Your task to perform on an android device: change the clock display to show seconds Image 0: 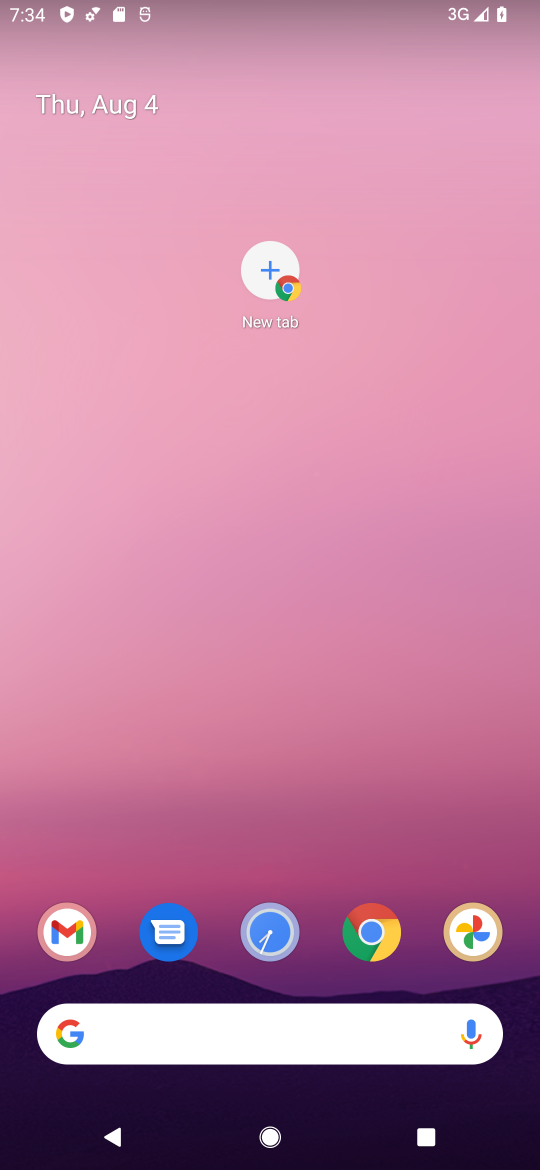
Step 0: drag from (348, 1023) to (239, 445)
Your task to perform on an android device: change the clock display to show seconds Image 1: 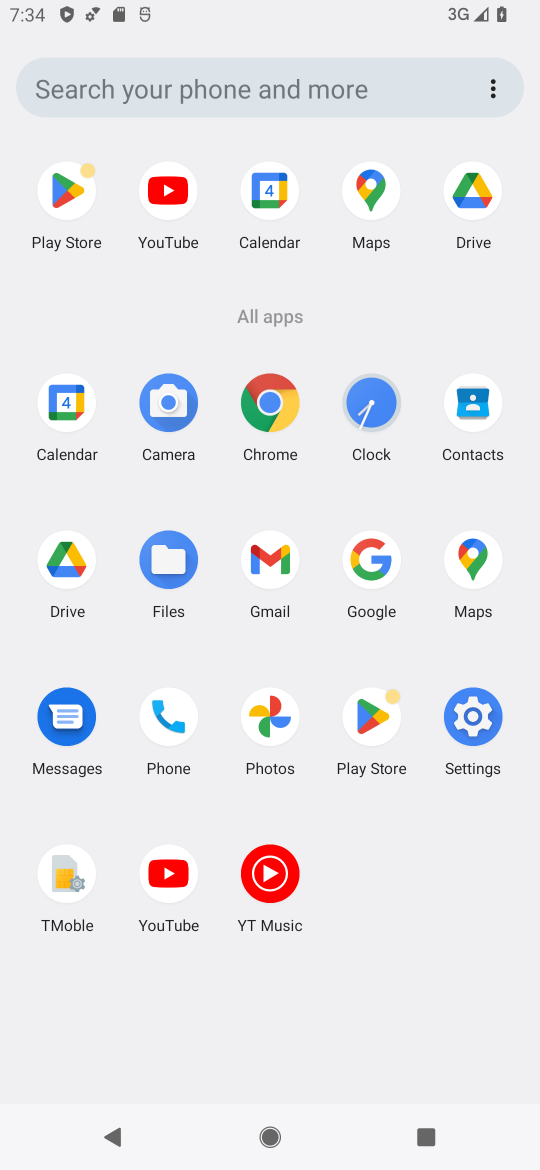
Step 1: click (367, 423)
Your task to perform on an android device: change the clock display to show seconds Image 2: 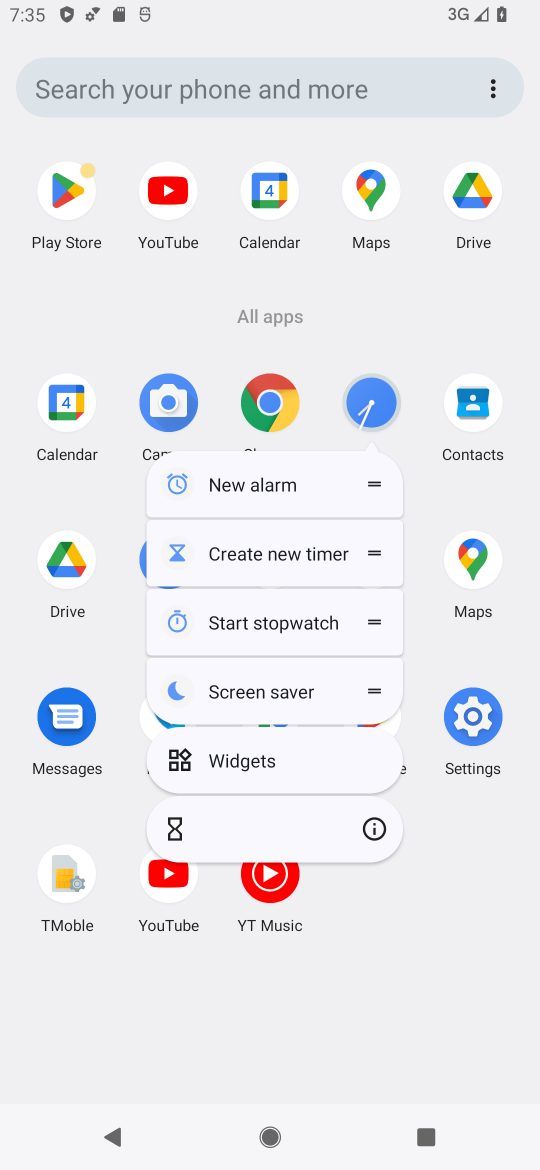
Step 2: click (125, 557)
Your task to perform on an android device: change the clock display to show seconds Image 3: 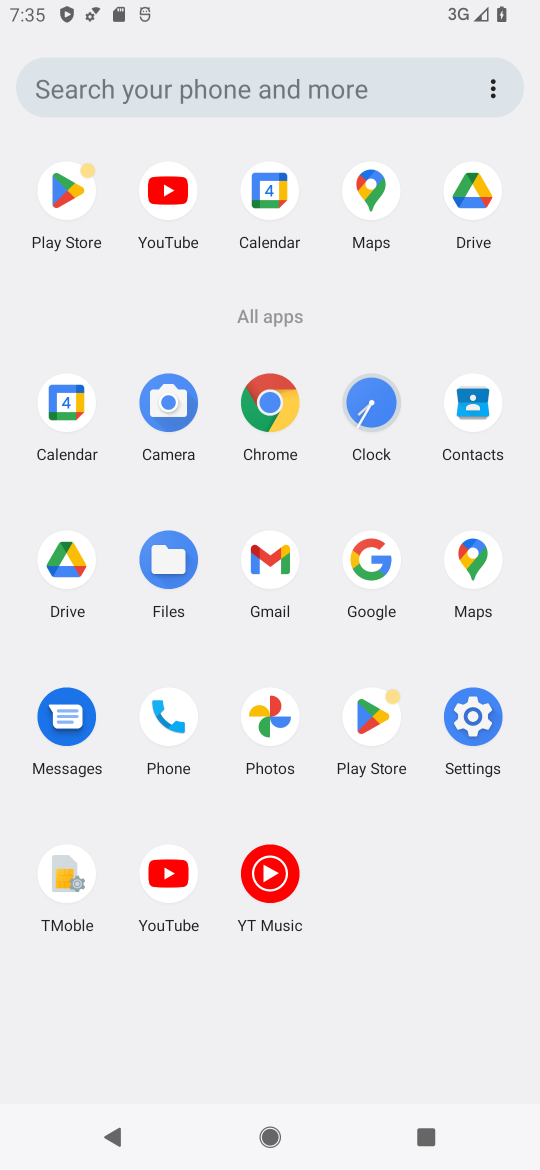
Step 3: click (126, 555)
Your task to perform on an android device: change the clock display to show seconds Image 4: 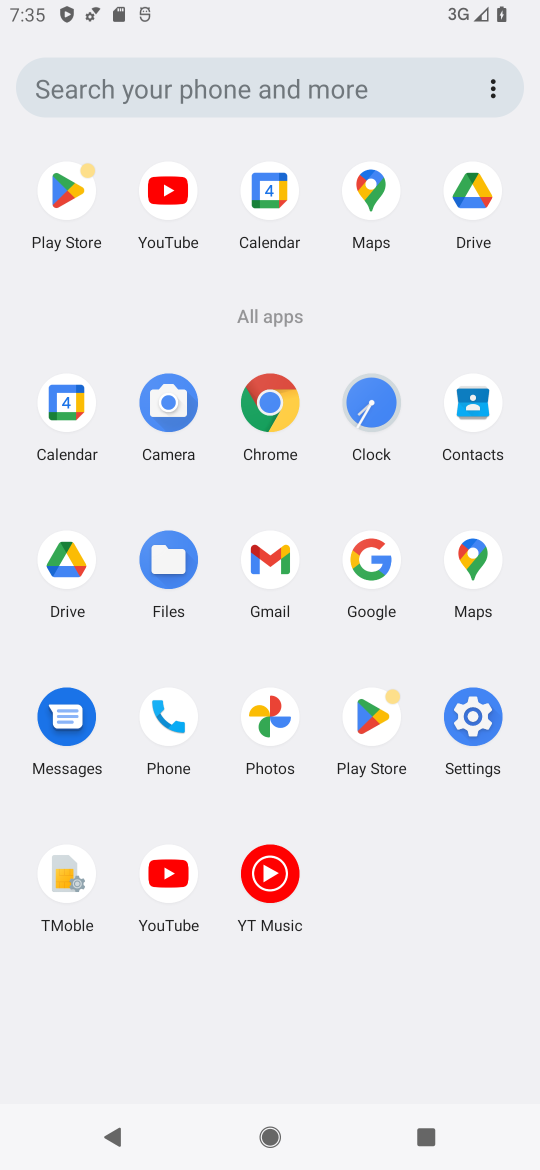
Step 4: click (366, 415)
Your task to perform on an android device: change the clock display to show seconds Image 5: 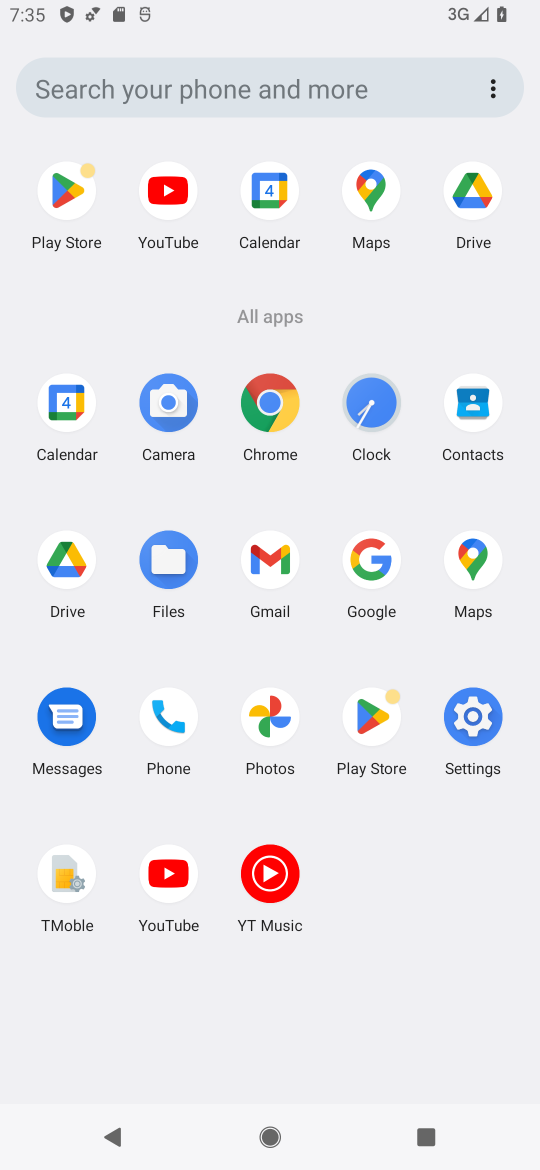
Step 5: click (370, 412)
Your task to perform on an android device: change the clock display to show seconds Image 6: 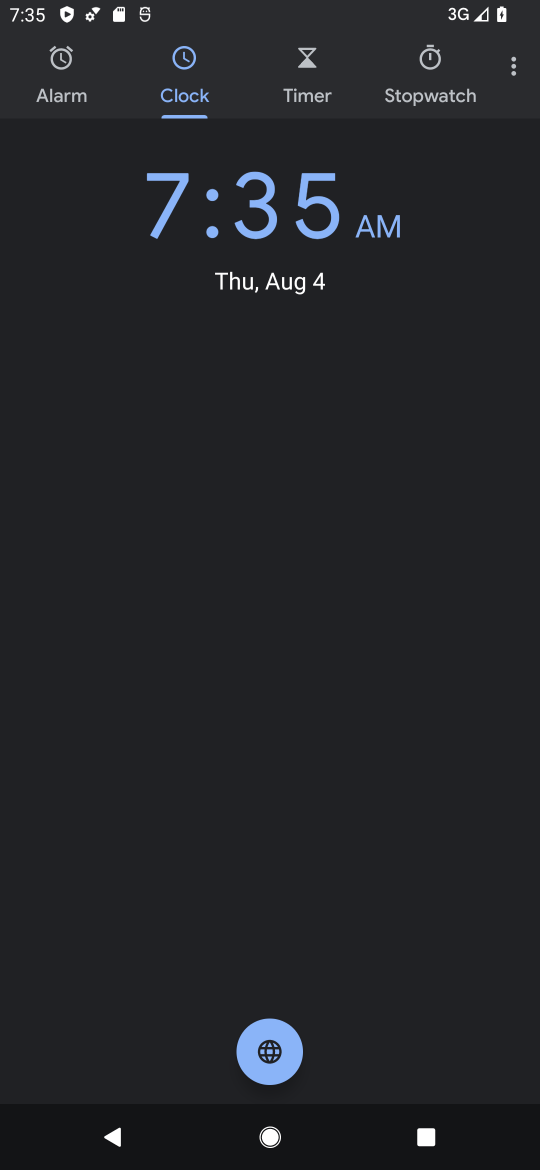
Step 6: click (507, 77)
Your task to perform on an android device: change the clock display to show seconds Image 7: 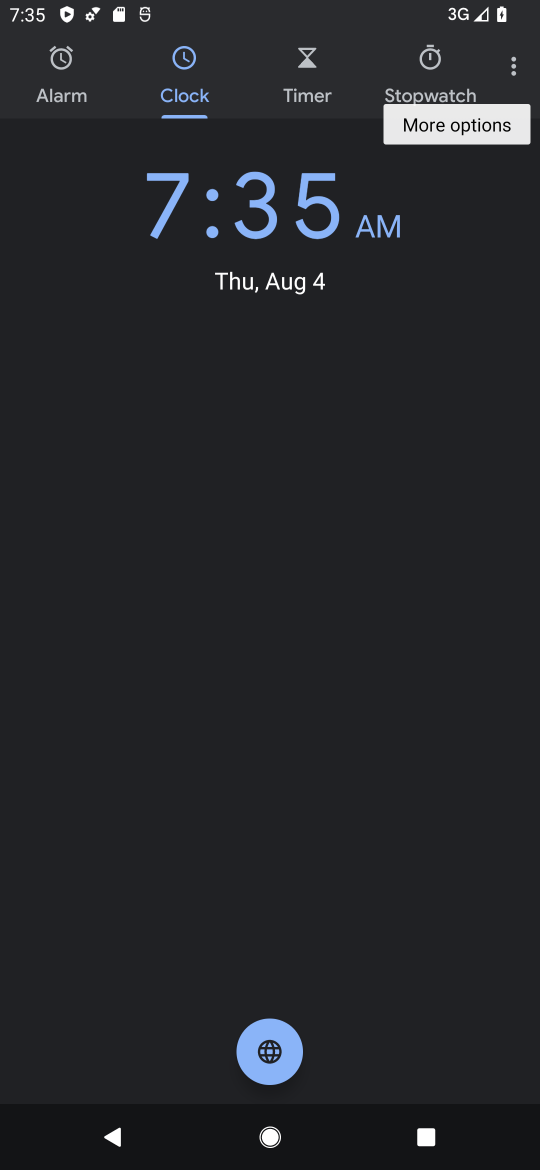
Step 7: click (517, 56)
Your task to perform on an android device: change the clock display to show seconds Image 8: 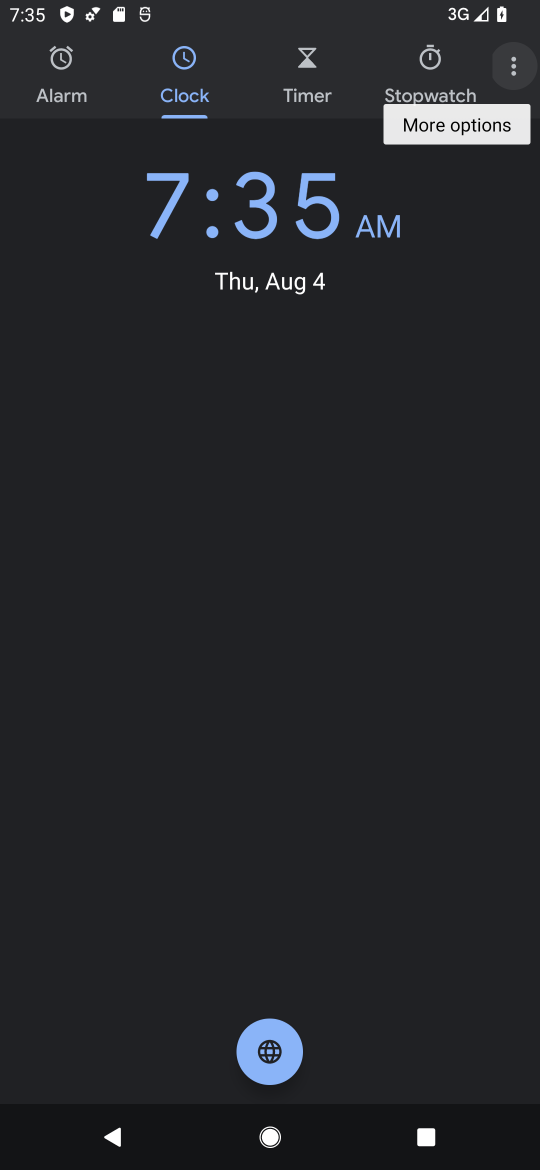
Step 8: click (491, 128)
Your task to perform on an android device: change the clock display to show seconds Image 9: 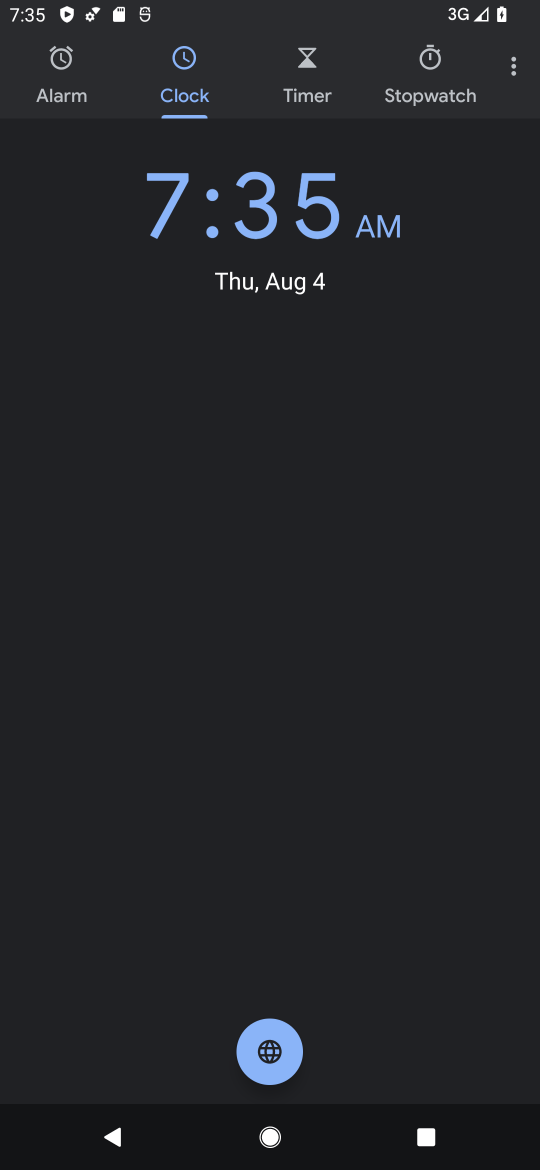
Step 9: click (516, 45)
Your task to perform on an android device: change the clock display to show seconds Image 10: 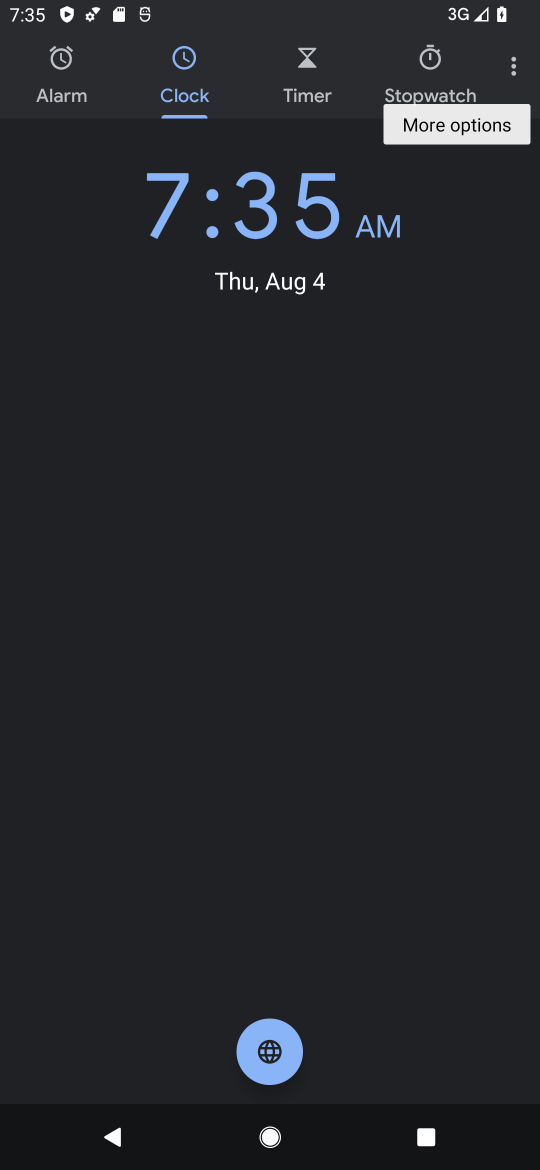
Step 10: click (509, 112)
Your task to perform on an android device: change the clock display to show seconds Image 11: 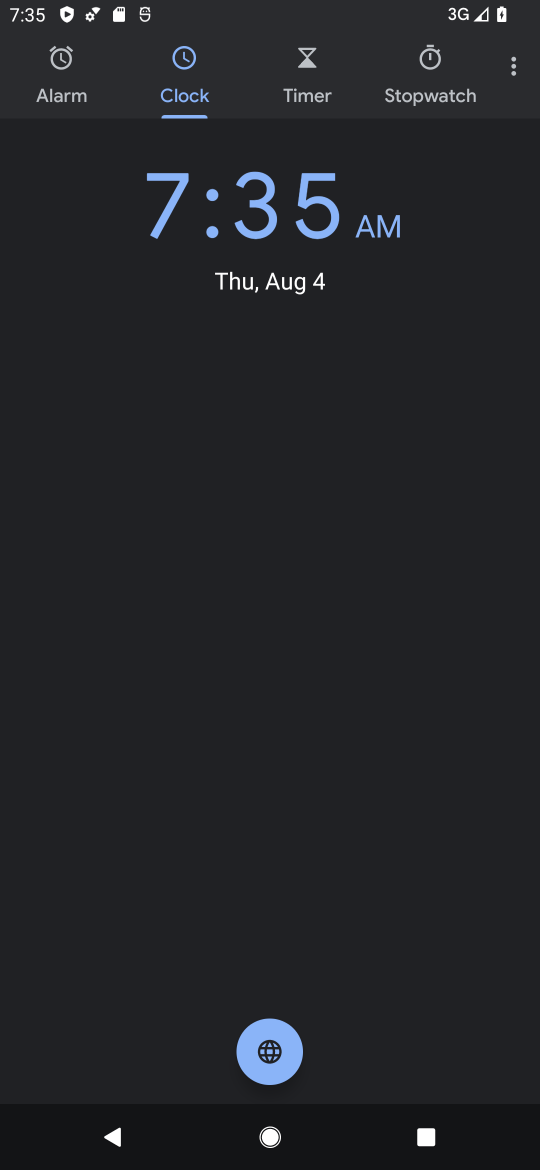
Step 11: click (506, 64)
Your task to perform on an android device: change the clock display to show seconds Image 12: 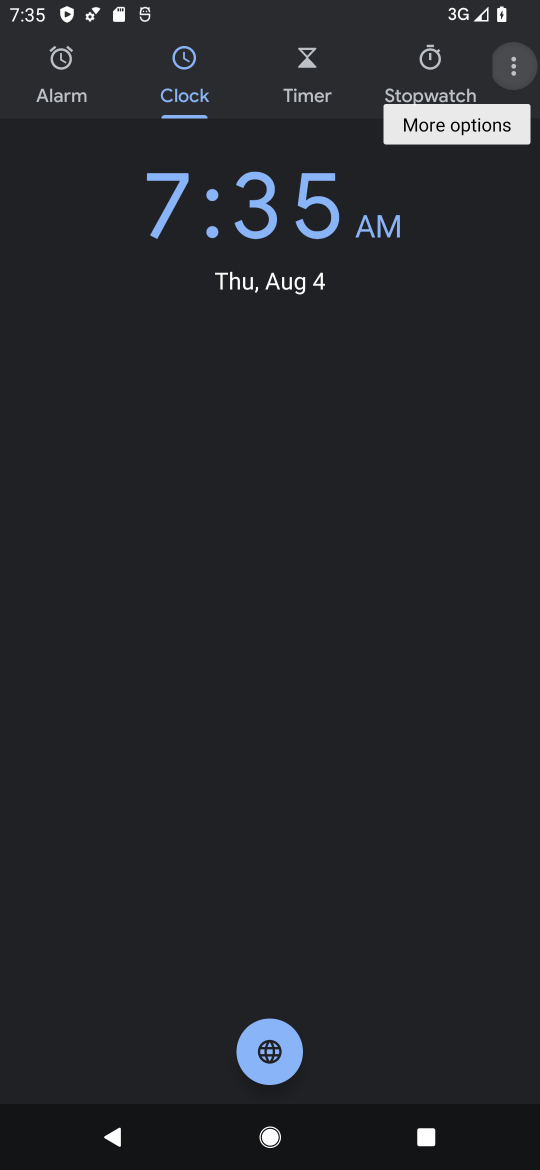
Step 12: click (468, 138)
Your task to perform on an android device: change the clock display to show seconds Image 13: 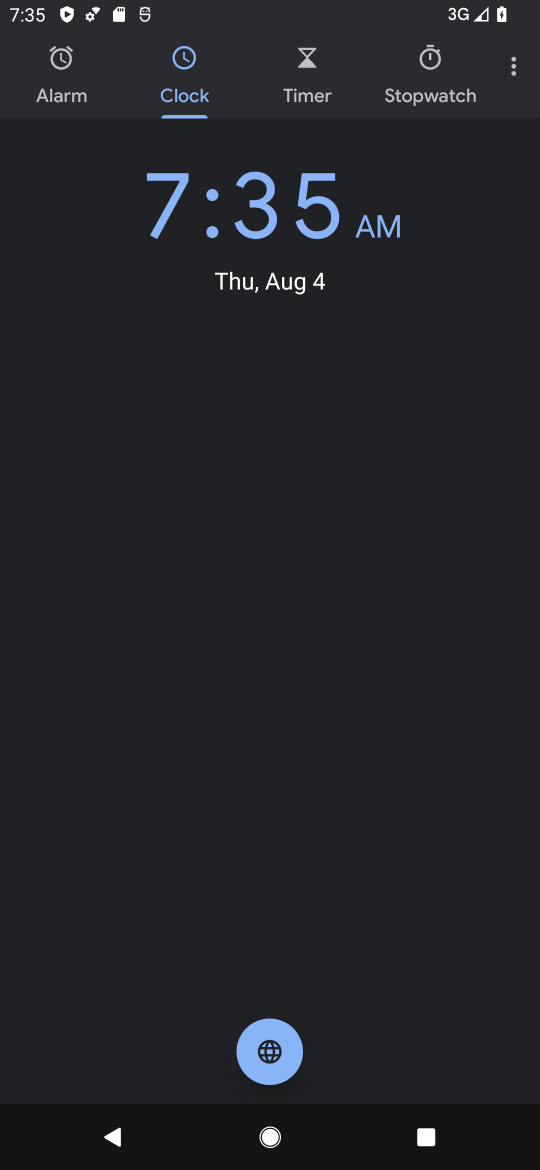
Step 13: drag from (514, 64) to (464, 445)
Your task to perform on an android device: change the clock display to show seconds Image 14: 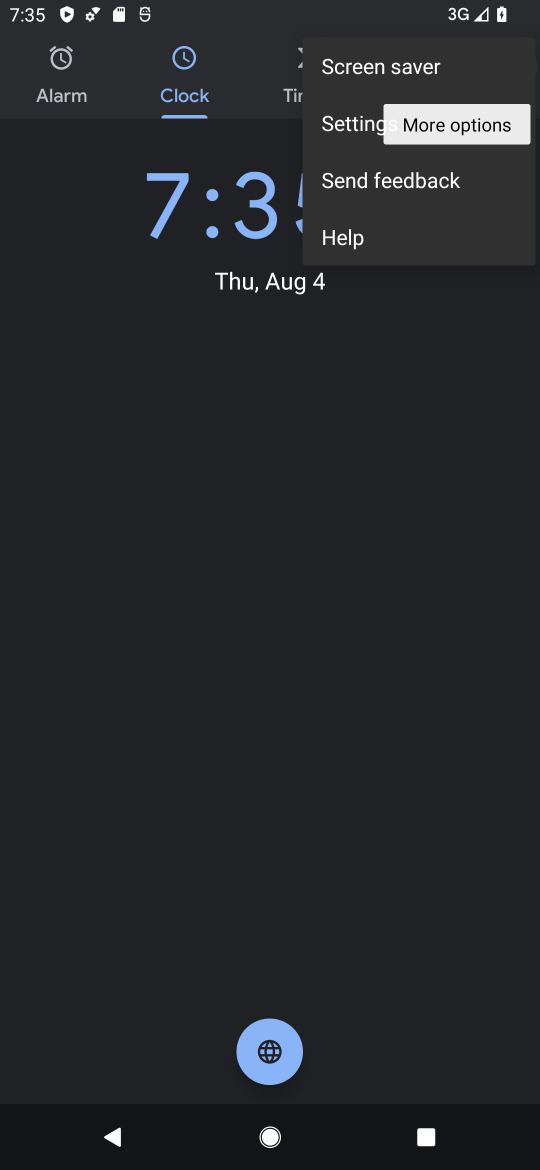
Step 14: click (517, 70)
Your task to perform on an android device: change the clock display to show seconds Image 15: 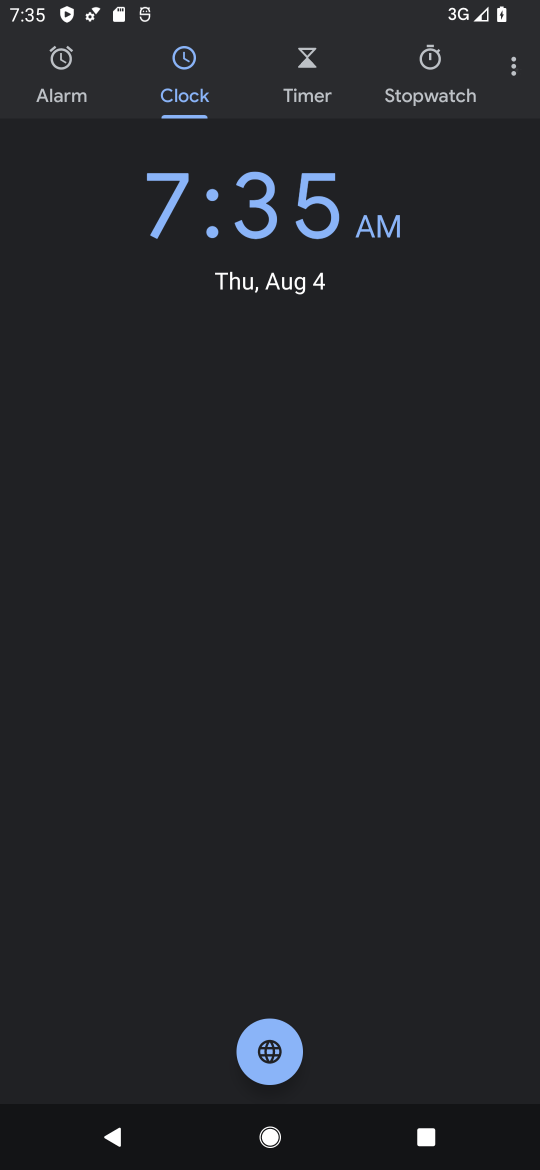
Step 15: click (507, 60)
Your task to perform on an android device: change the clock display to show seconds Image 16: 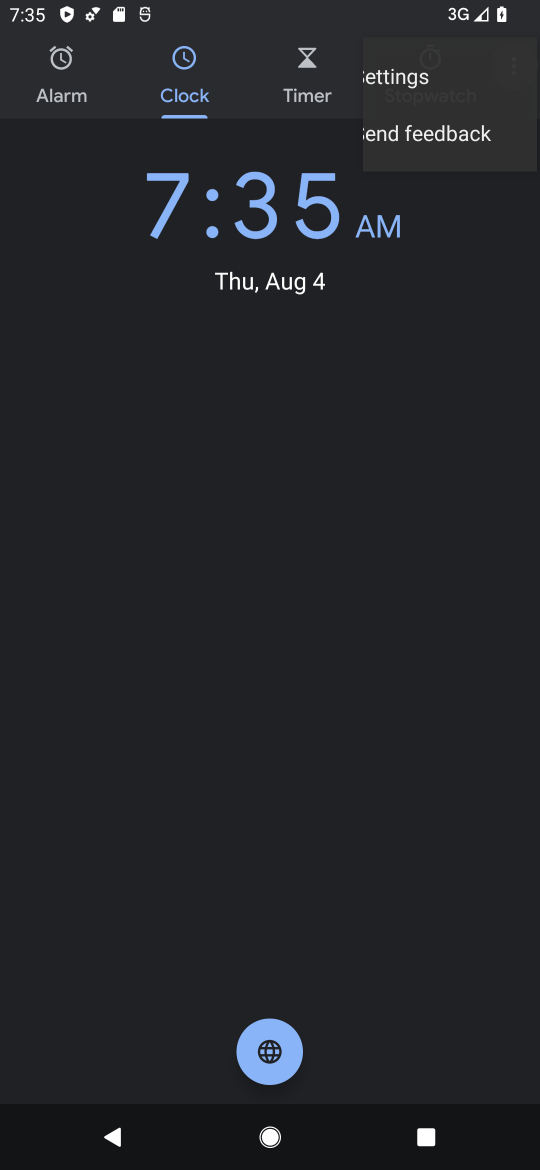
Step 16: click (520, 79)
Your task to perform on an android device: change the clock display to show seconds Image 17: 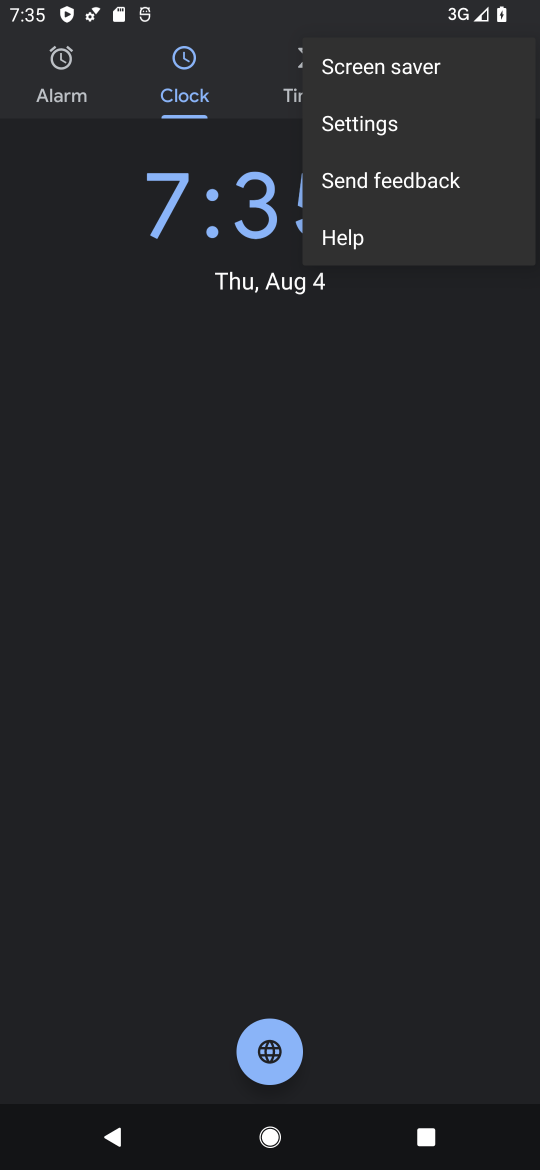
Step 17: click (386, 127)
Your task to perform on an android device: change the clock display to show seconds Image 18: 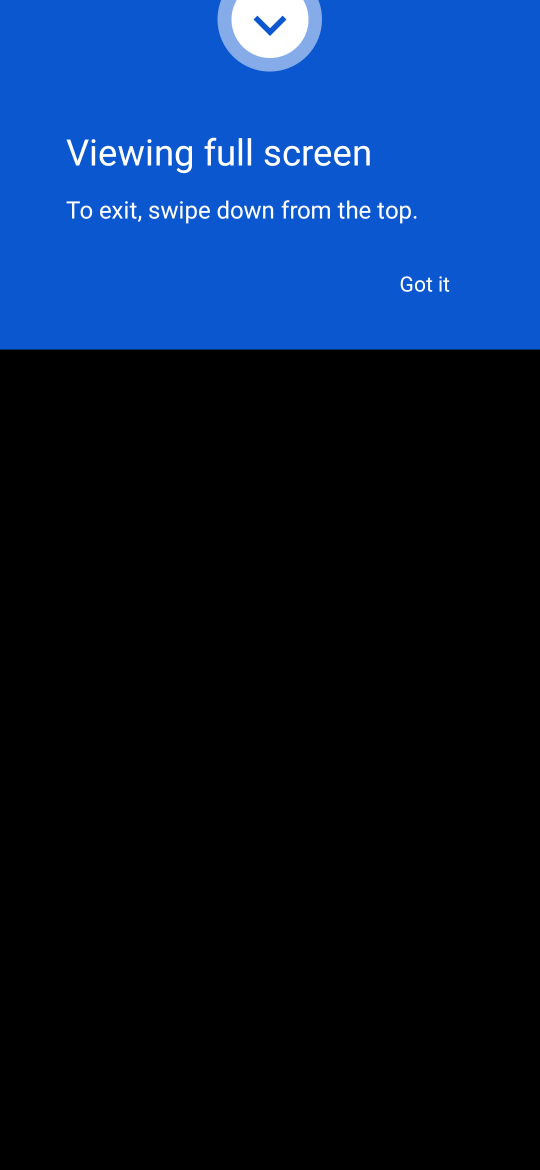
Step 18: click (419, 292)
Your task to perform on an android device: change the clock display to show seconds Image 19: 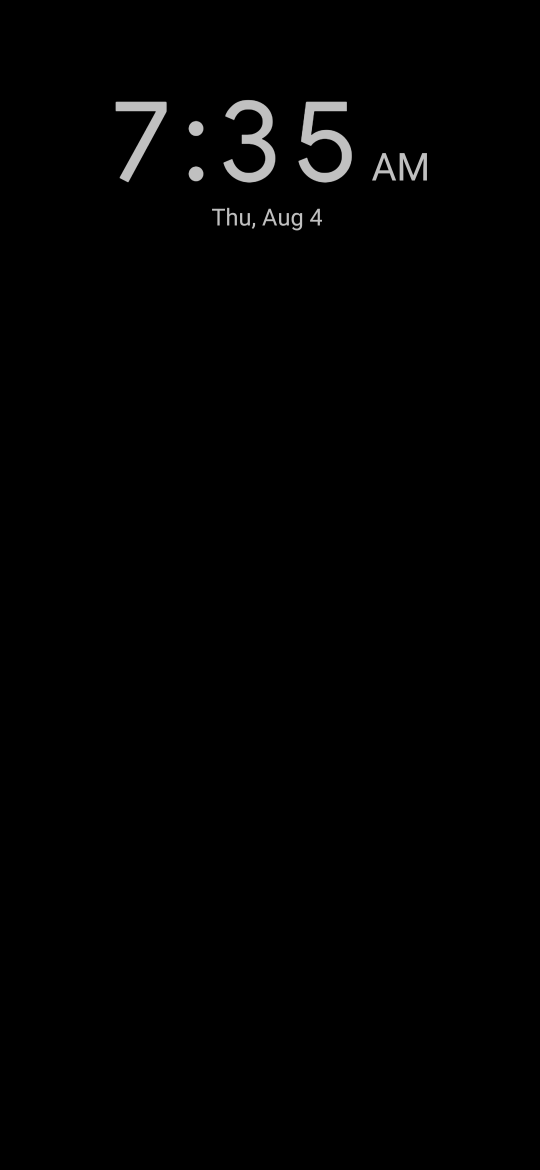
Step 19: drag from (176, 114) to (490, 251)
Your task to perform on an android device: change the clock display to show seconds Image 20: 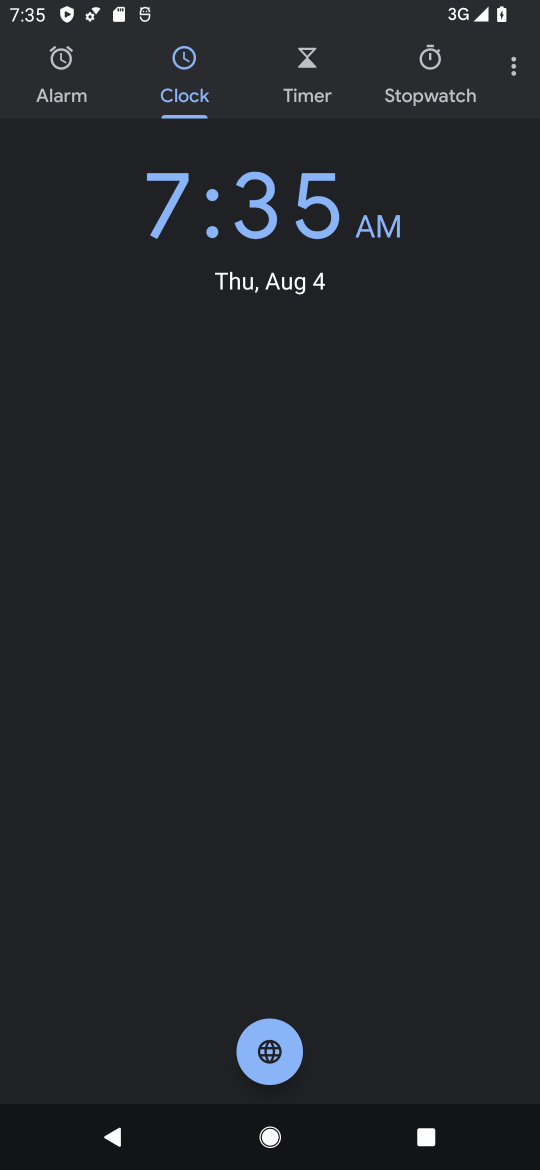
Step 20: click (530, 66)
Your task to perform on an android device: change the clock display to show seconds Image 21: 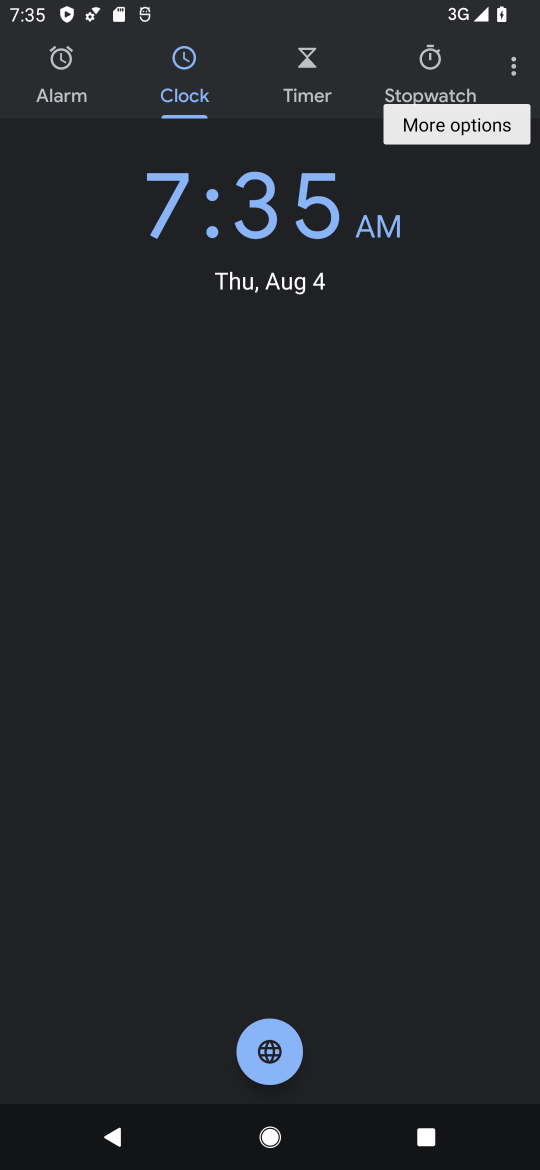
Step 21: click (519, 65)
Your task to perform on an android device: change the clock display to show seconds Image 22: 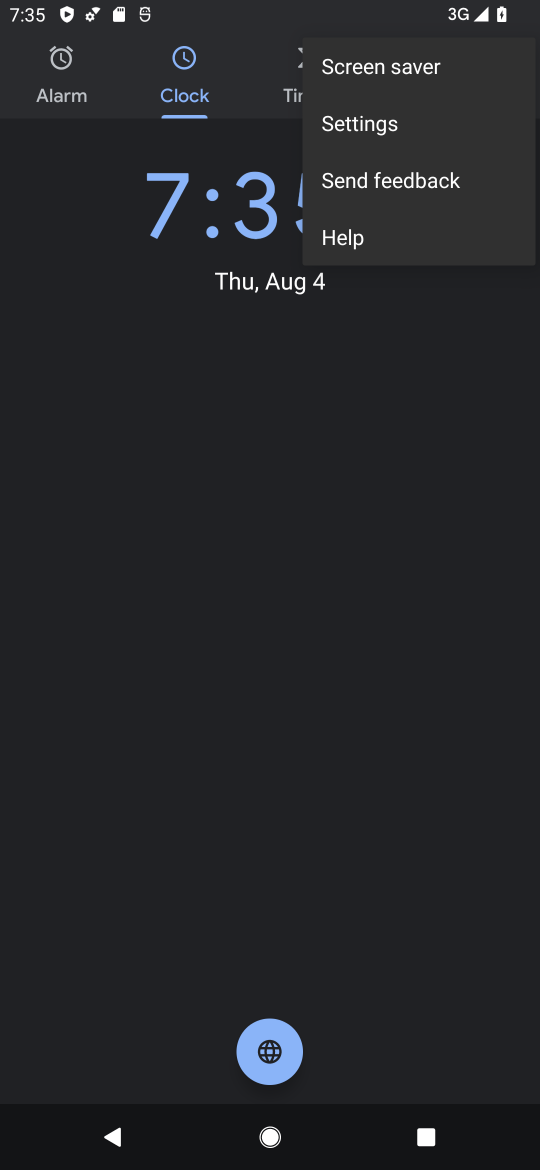
Step 22: click (388, 117)
Your task to perform on an android device: change the clock display to show seconds Image 23: 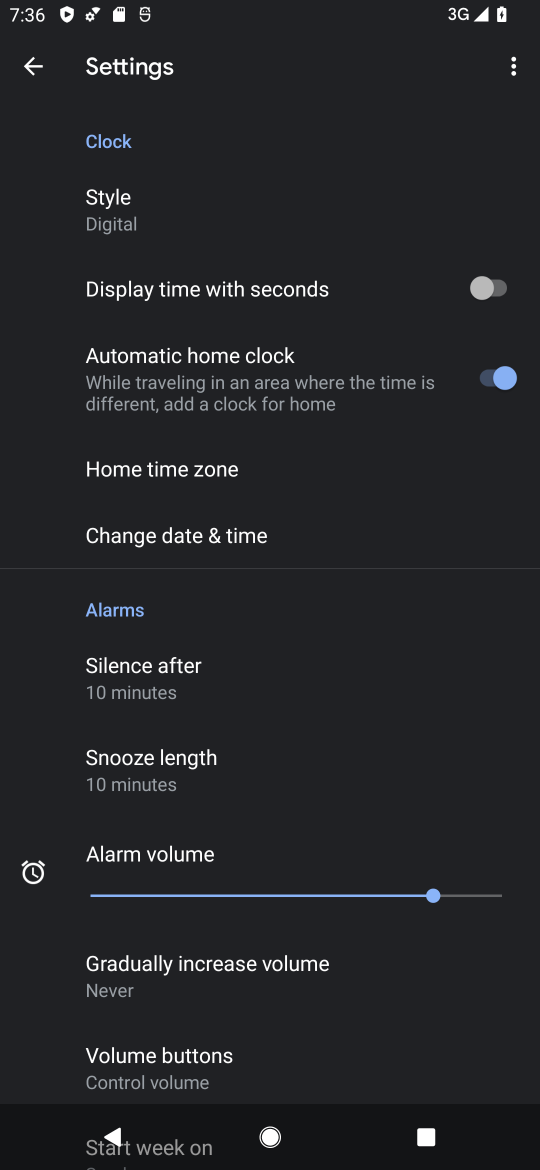
Step 23: click (484, 298)
Your task to perform on an android device: change the clock display to show seconds Image 24: 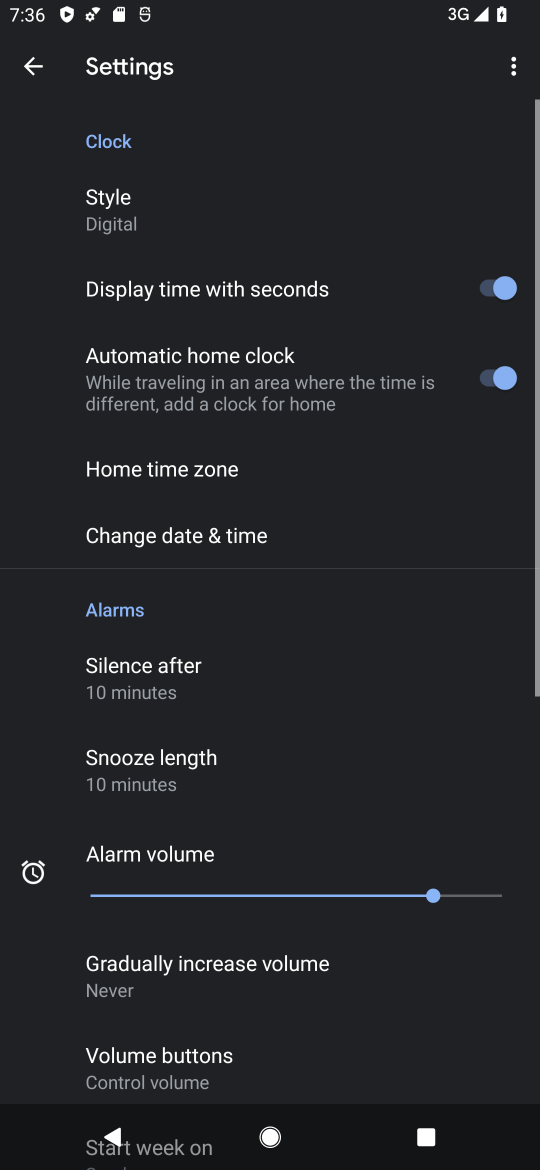
Step 24: task complete